Your task to perform on an android device: Check the weather Image 0: 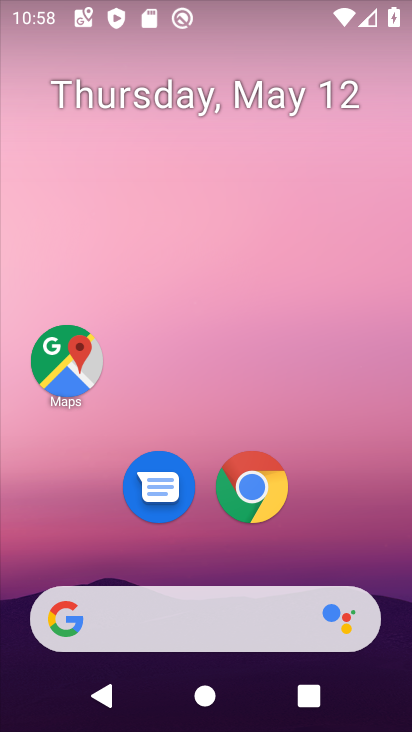
Step 0: press home button
Your task to perform on an android device: Check the weather Image 1: 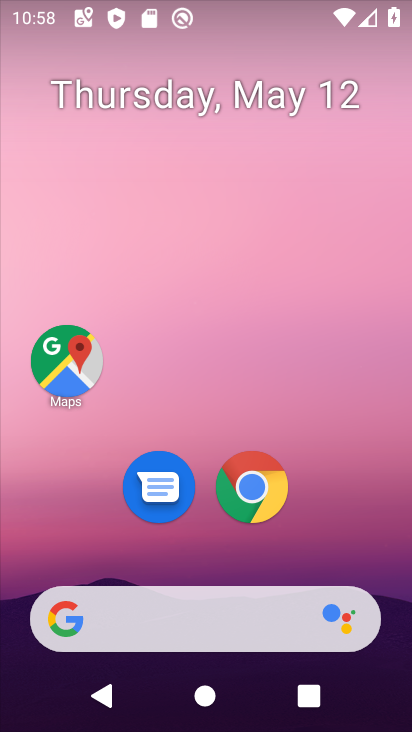
Step 1: drag from (60, 566) to (259, 149)
Your task to perform on an android device: Check the weather Image 2: 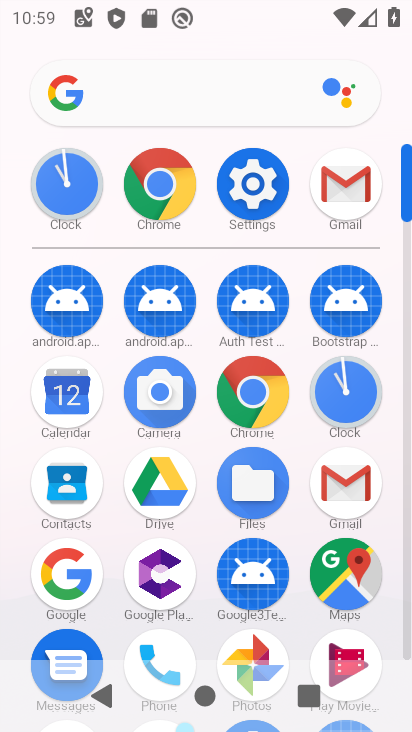
Step 2: press back button
Your task to perform on an android device: Check the weather Image 3: 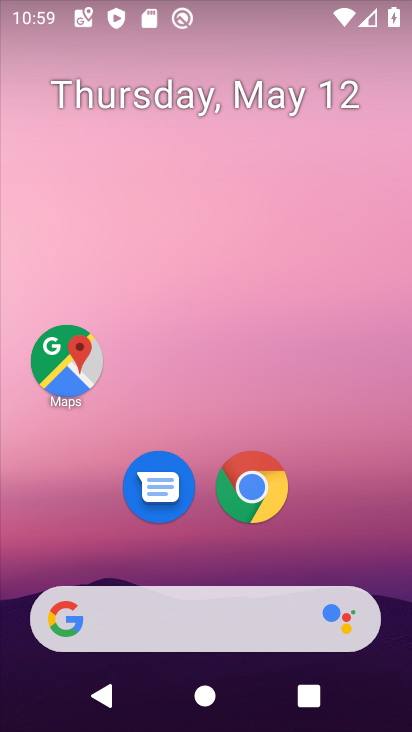
Step 3: click (171, 616)
Your task to perform on an android device: Check the weather Image 4: 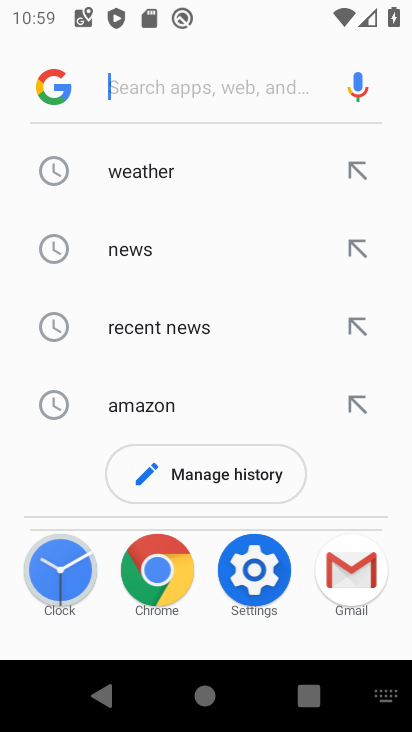
Step 4: click (166, 163)
Your task to perform on an android device: Check the weather Image 5: 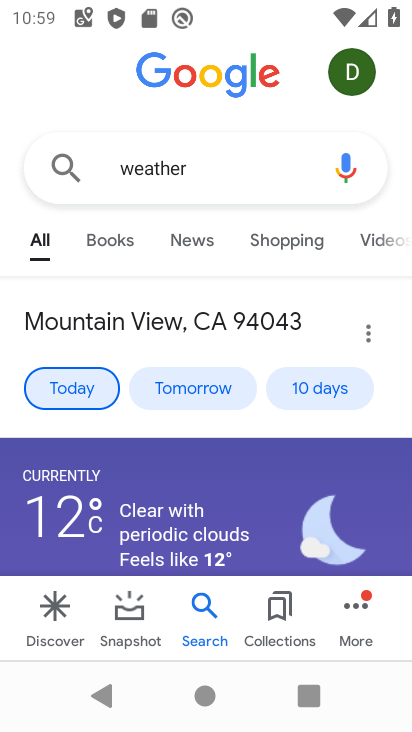
Step 5: task complete